Your task to perform on an android device: turn off location history Image 0: 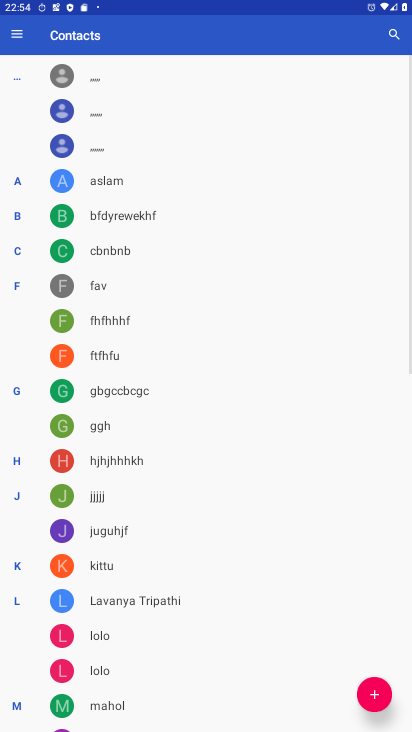
Step 0: press home button
Your task to perform on an android device: turn off location history Image 1: 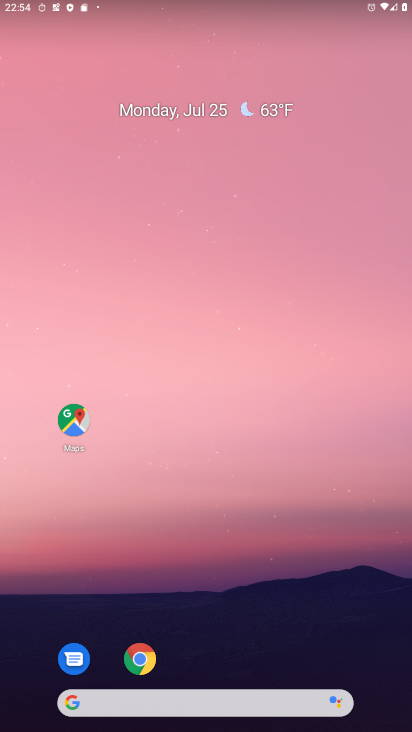
Step 1: drag from (217, 721) to (222, 146)
Your task to perform on an android device: turn off location history Image 2: 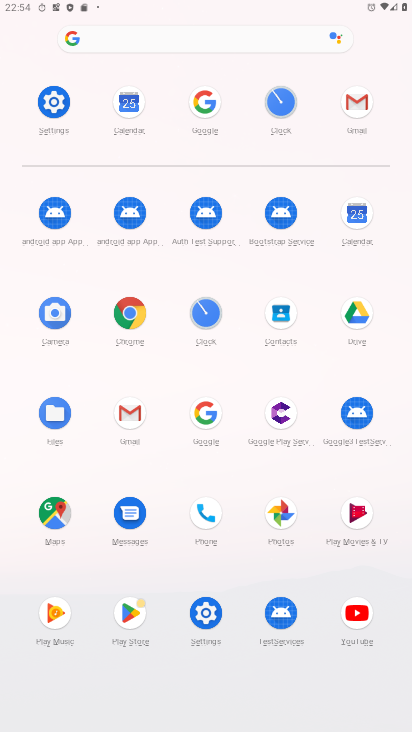
Step 2: click (45, 98)
Your task to perform on an android device: turn off location history Image 3: 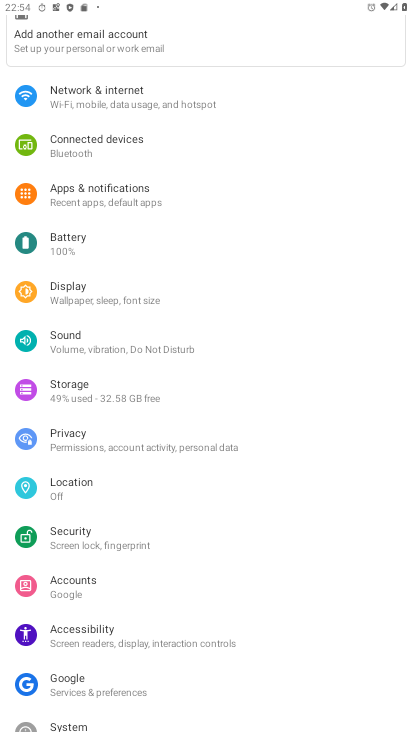
Step 3: click (75, 477)
Your task to perform on an android device: turn off location history Image 4: 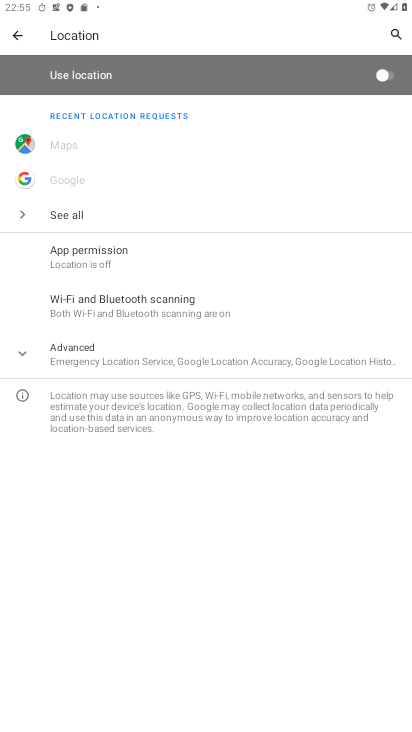
Step 4: click (103, 349)
Your task to perform on an android device: turn off location history Image 5: 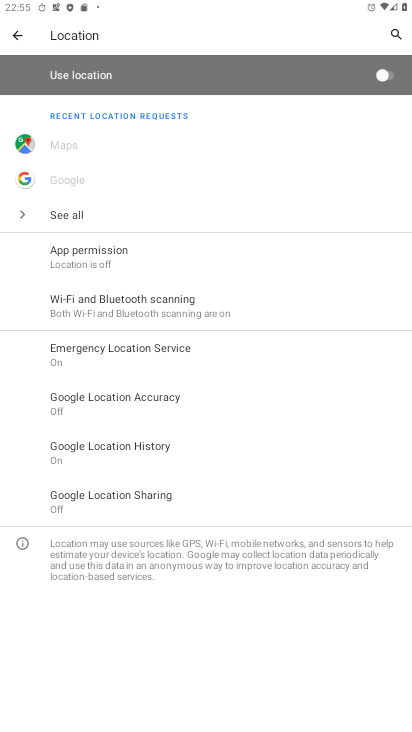
Step 5: click (125, 442)
Your task to perform on an android device: turn off location history Image 6: 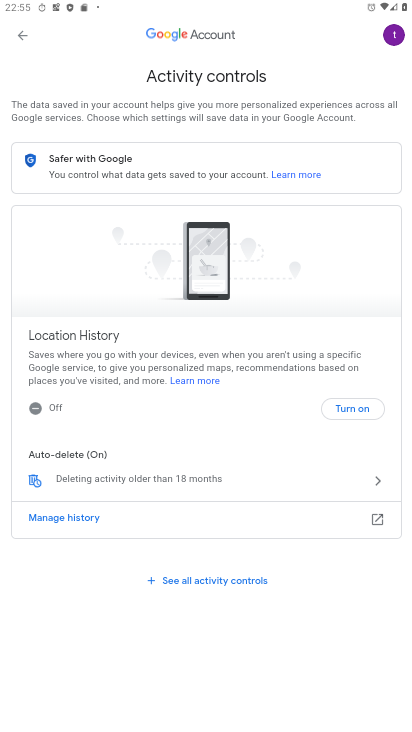
Step 6: task complete